Your task to perform on an android device: turn pop-ups on in chrome Image 0: 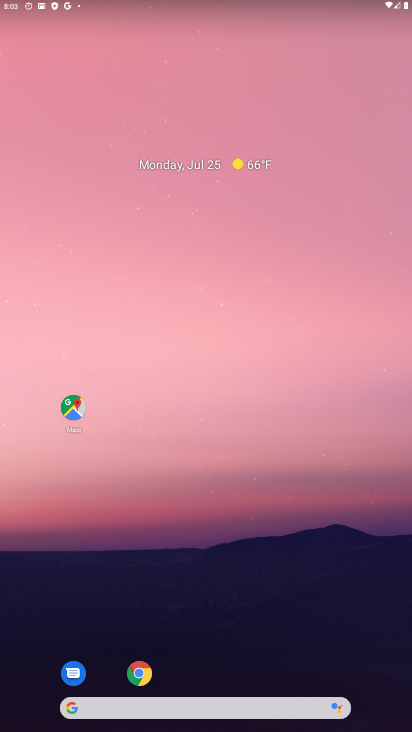
Step 0: drag from (179, 544) to (225, 216)
Your task to perform on an android device: turn pop-ups on in chrome Image 1: 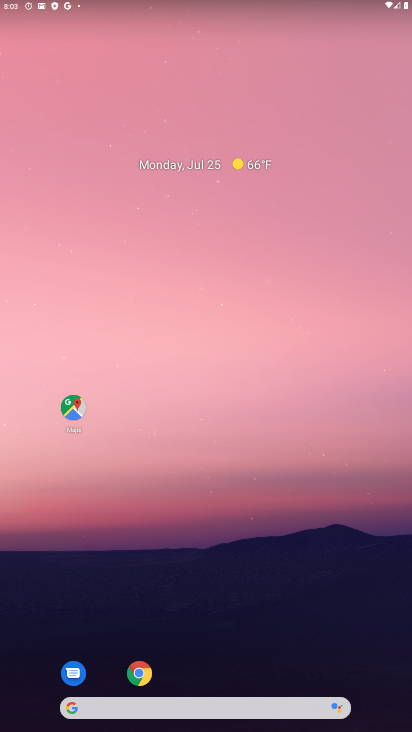
Step 1: drag from (182, 671) to (249, 186)
Your task to perform on an android device: turn pop-ups on in chrome Image 2: 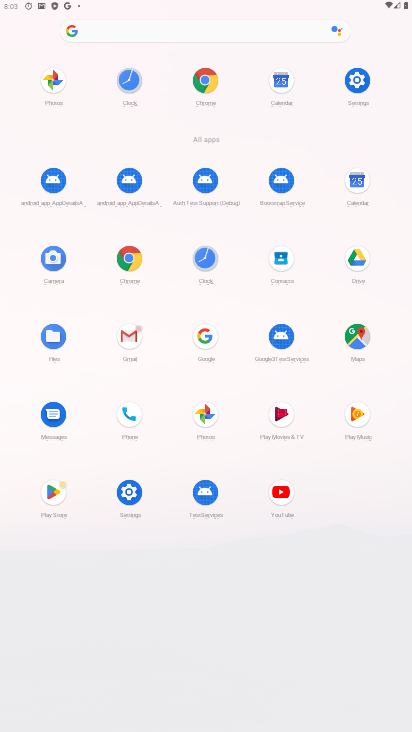
Step 2: click (127, 260)
Your task to perform on an android device: turn pop-ups on in chrome Image 3: 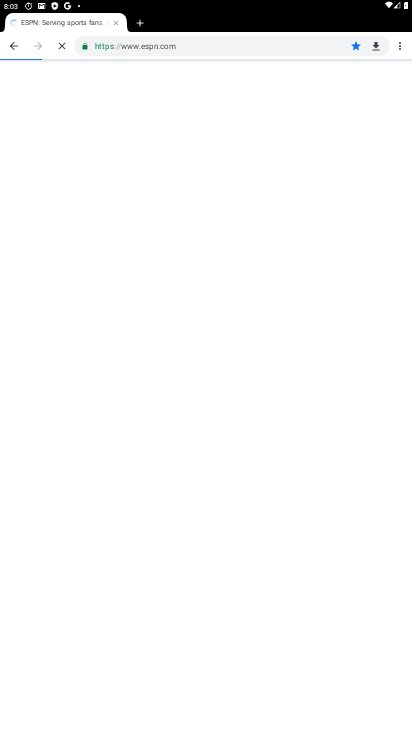
Step 3: drag from (401, 45) to (322, 308)
Your task to perform on an android device: turn pop-ups on in chrome Image 4: 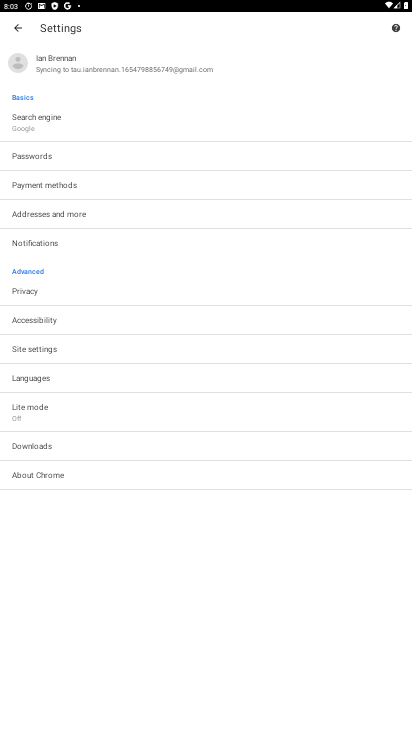
Step 4: click (70, 350)
Your task to perform on an android device: turn pop-ups on in chrome Image 5: 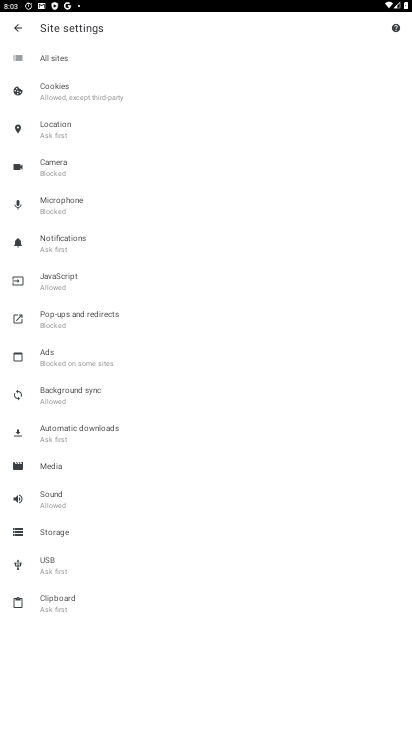
Step 5: click (104, 325)
Your task to perform on an android device: turn pop-ups on in chrome Image 6: 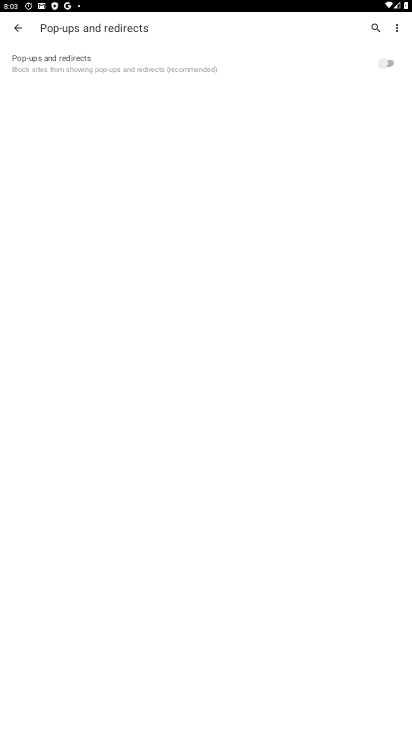
Step 6: drag from (159, 581) to (179, 198)
Your task to perform on an android device: turn pop-ups on in chrome Image 7: 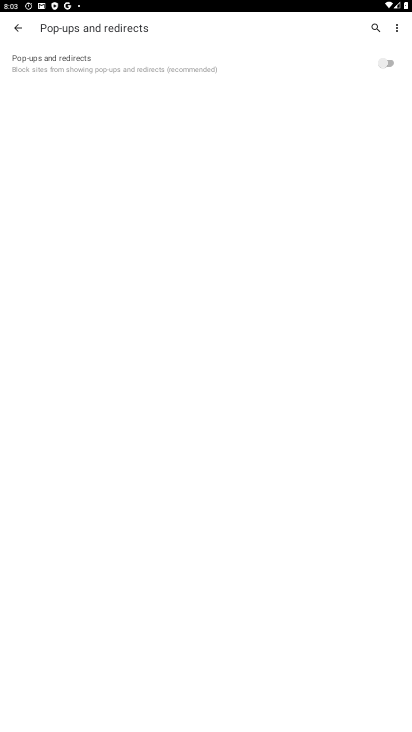
Step 7: click (258, 68)
Your task to perform on an android device: turn pop-ups on in chrome Image 8: 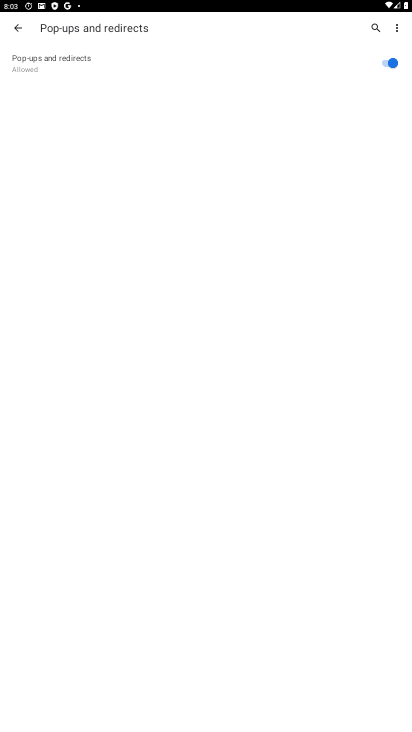
Step 8: task complete